Your task to perform on an android device: See recent photos Image 0: 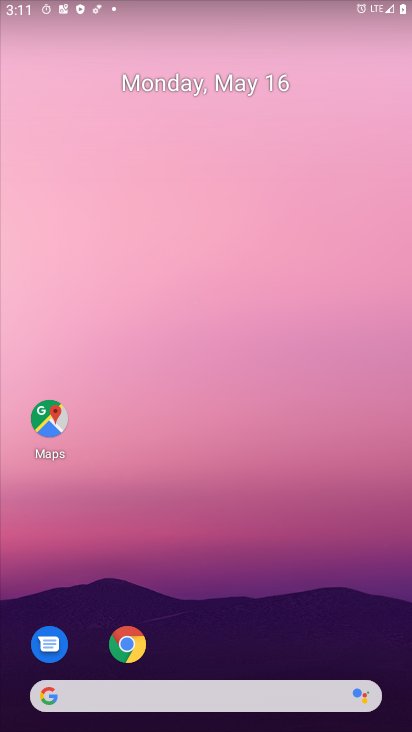
Step 0: drag from (245, 687) to (267, 173)
Your task to perform on an android device: See recent photos Image 1: 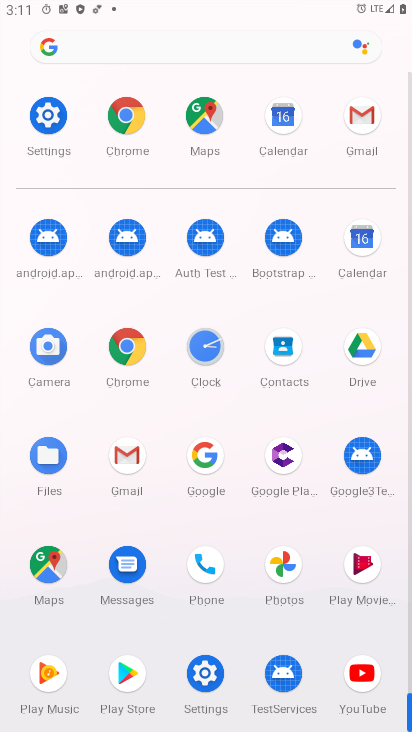
Step 1: click (292, 581)
Your task to perform on an android device: See recent photos Image 2: 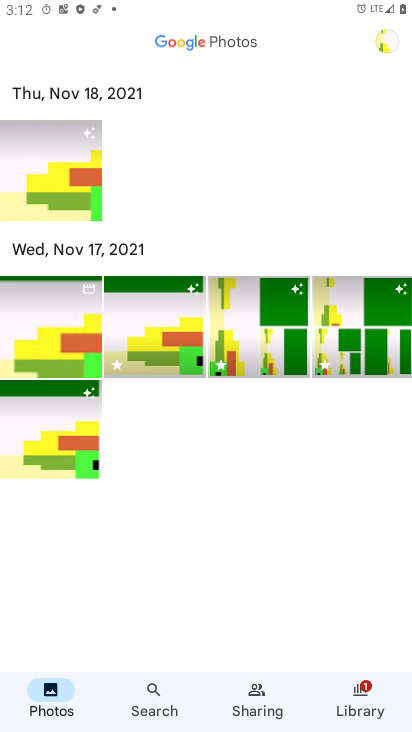
Step 2: task complete